Your task to perform on an android device: find snoozed emails in the gmail app Image 0: 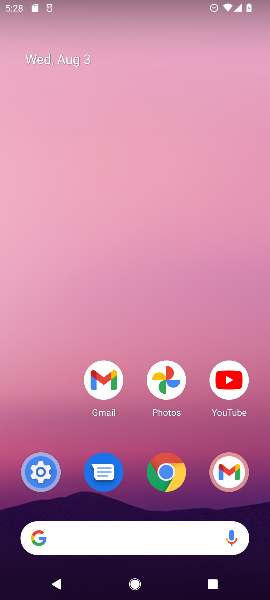
Step 0: drag from (201, 482) to (75, 36)
Your task to perform on an android device: find snoozed emails in the gmail app Image 1: 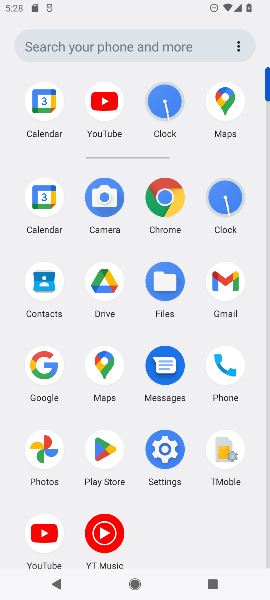
Step 1: click (231, 286)
Your task to perform on an android device: find snoozed emails in the gmail app Image 2: 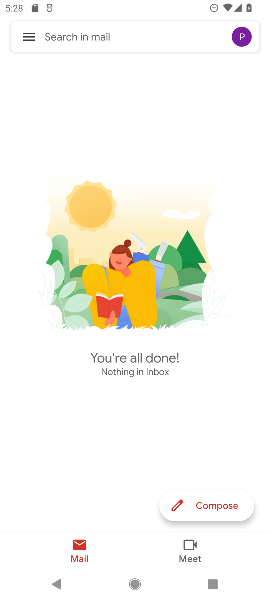
Step 2: click (25, 35)
Your task to perform on an android device: find snoozed emails in the gmail app Image 3: 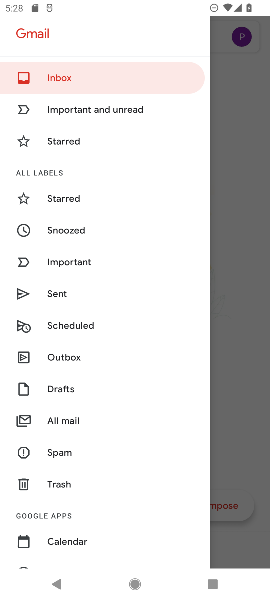
Step 3: click (71, 227)
Your task to perform on an android device: find snoozed emails in the gmail app Image 4: 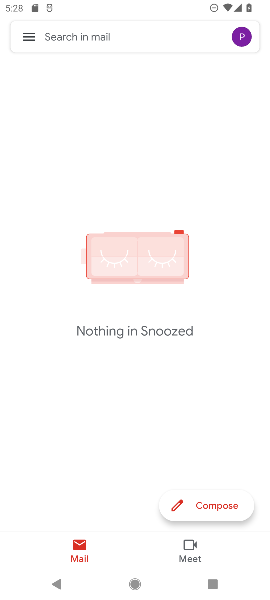
Step 4: task complete